Your task to perform on an android device: check data usage Image 0: 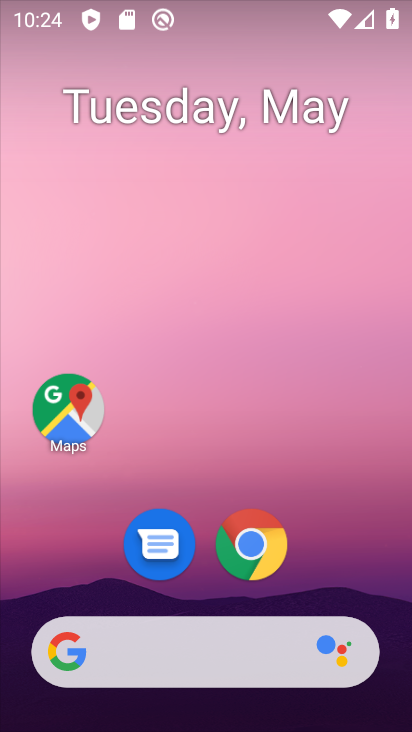
Step 0: drag from (347, 594) to (283, 136)
Your task to perform on an android device: check data usage Image 1: 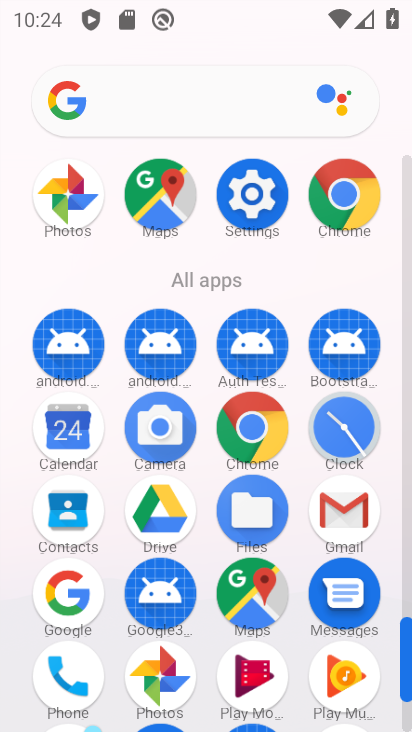
Step 1: click (260, 189)
Your task to perform on an android device: check data usage Image 2: 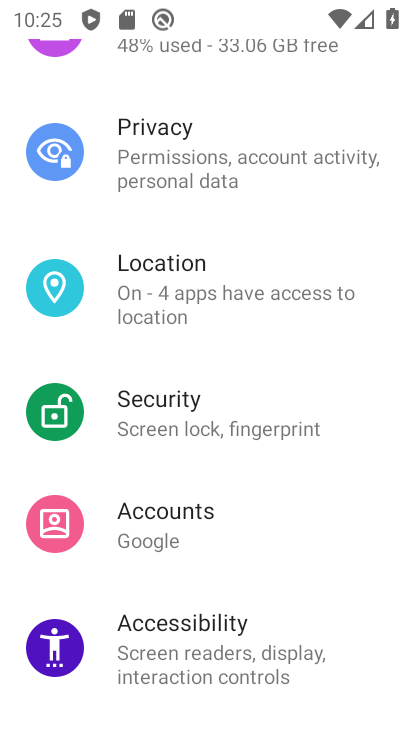
Step 2: drag from (246, 91) to (273, 585)
Your task to perform on an android device: check data usage Image 3: 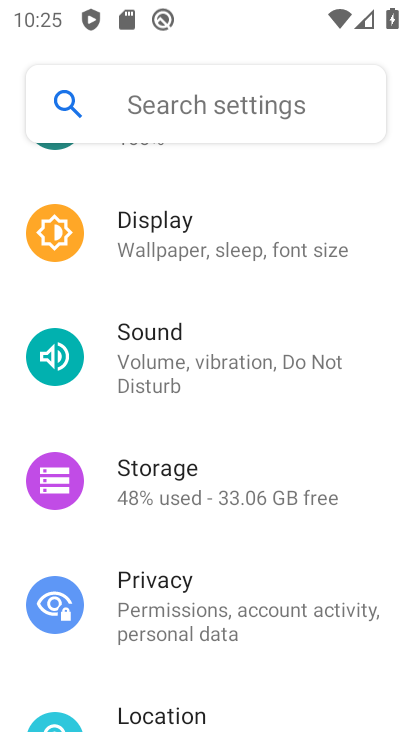
Step 3: drag from (227, 179) to (272, 711)
Your task to perform on an android device: check data usage Image 4: 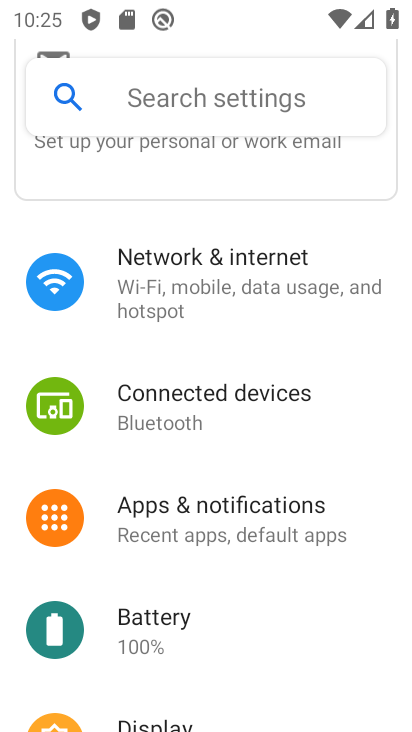
Step 4: click (249, 290)
Your task to perform on an android device: check data usage Image 5: 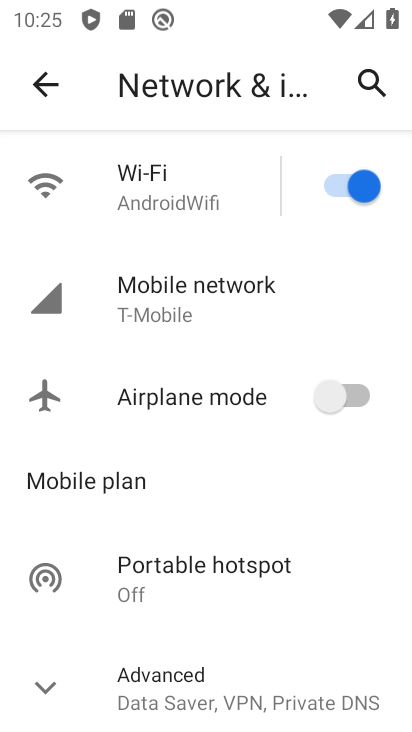
Step 5: click (171, 201)
Your task to perform on an android device: check data usage Image 6: 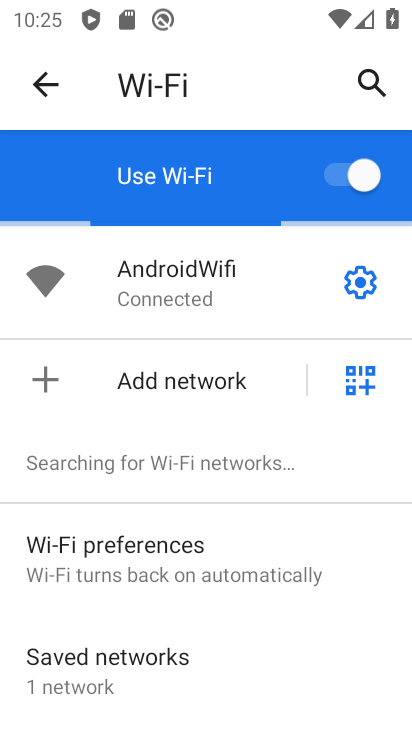
Step 6: drag from (203, 684) to (155, 137)
Your task to perform on an android device: check data usage Image 7: 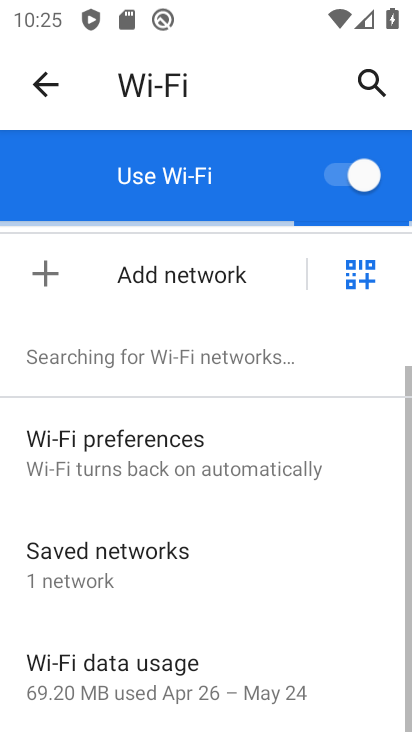
Step 7: click (226, 688)
Your task to perform on an android device: check data usage Image 8: 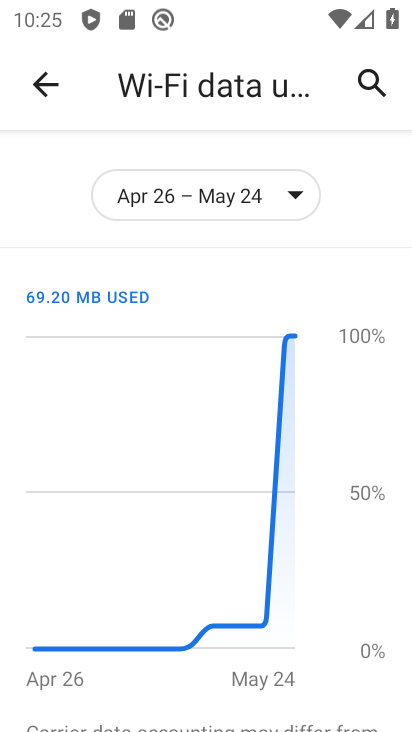
Step 8: task complete